Your task to perform on an android device: Is it going to rain today? Image 0: 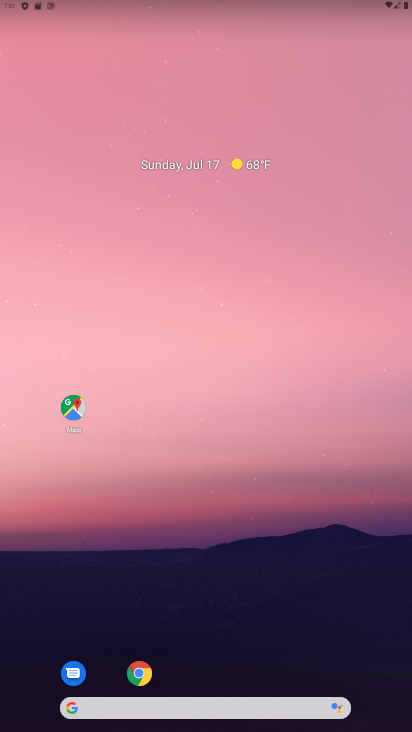
Step 0: drag from (305, 616) to (237, 75)
Your task to perform on an android device: Is it going to rain today? Image 1: 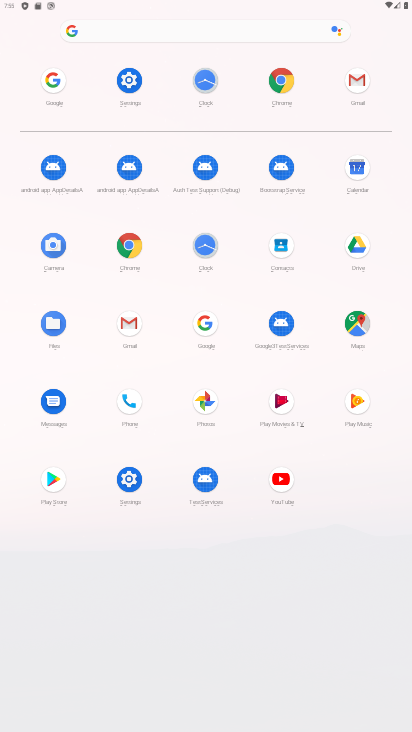
Step 1: click (203, 330)
Your task to perform on an android device: Is it going to rain today? Image 2: 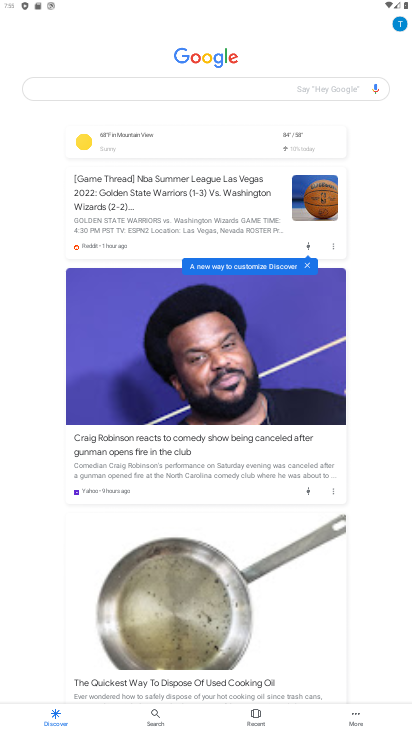
Step 2: click (156, 147)
Your task to perform on an android device: Is it going to rain today? Image 3: 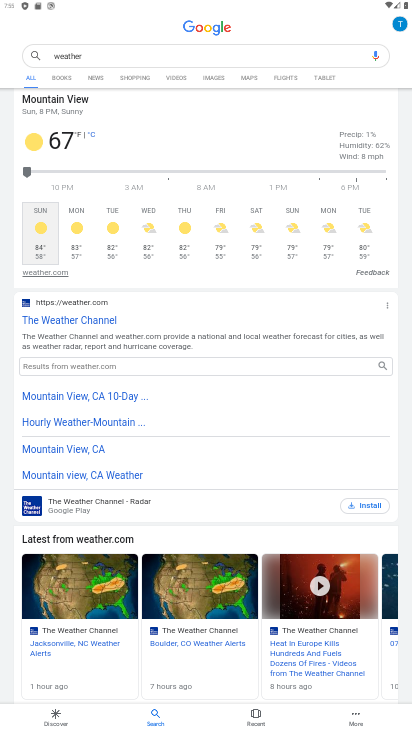
Step 3: task complete